Your task to perform on an android device: Is it going to rain tomorrow? Image 0: 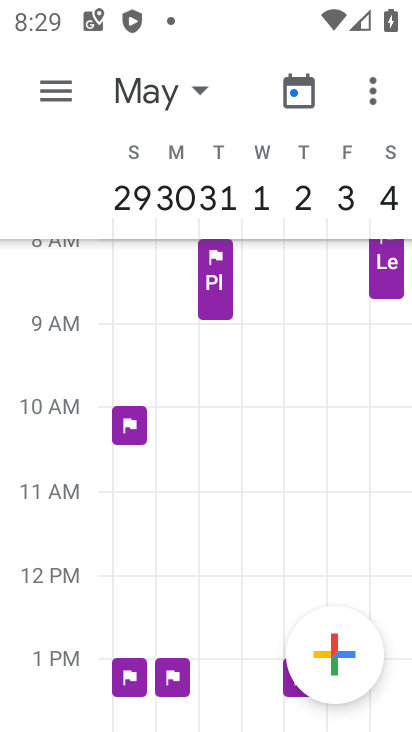
Step 0: press home button
Your task to perform on an android device: Is it going to rain tomorrow? Image 1: 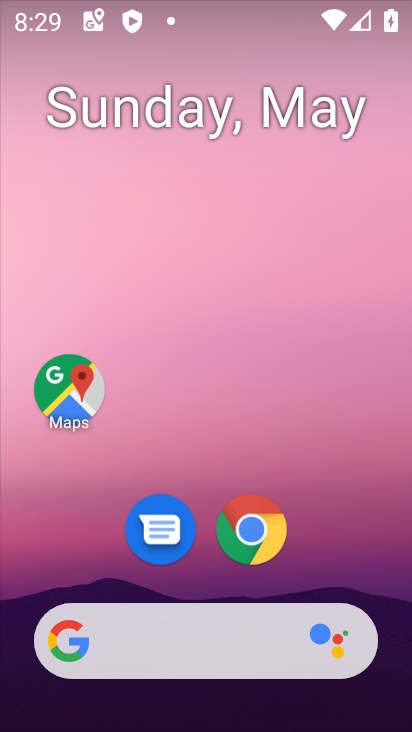
Step 1: click (117, 640)
Your task to perform on an android device: Is it going to rain tomorrow? Image 2: 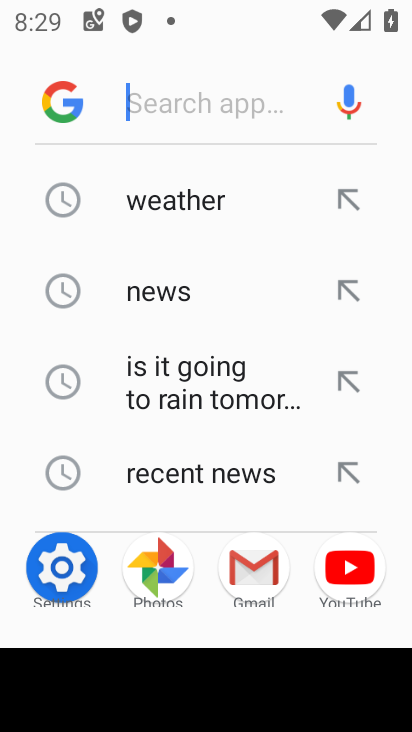
Step 2: click (173, 181)
Your task to perform on an android device: Is it going to rain tomorrow? Image 3: 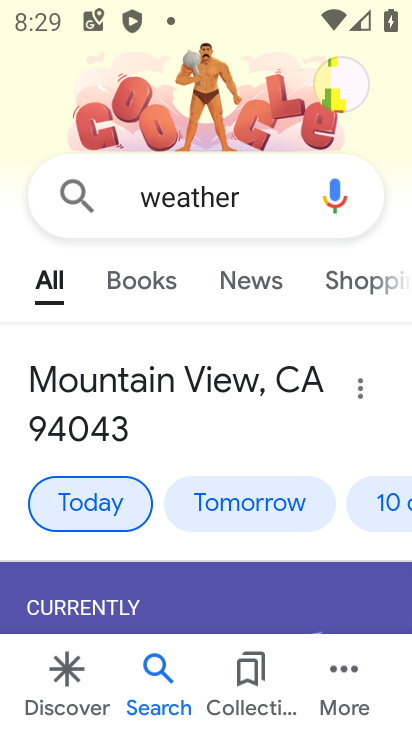
Step 3: click (270, 511)
Your task to perform on an android device: Is it going to rain tomorrow? Image 4: 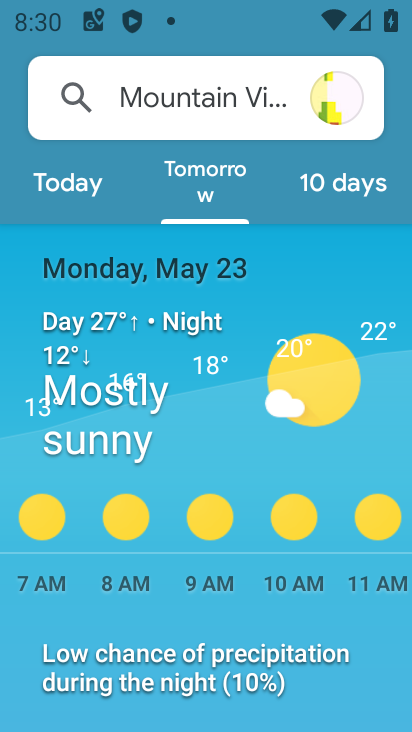
Step 4: task complete